Your task to perform on an android device: Open Google Chrome Image 0: 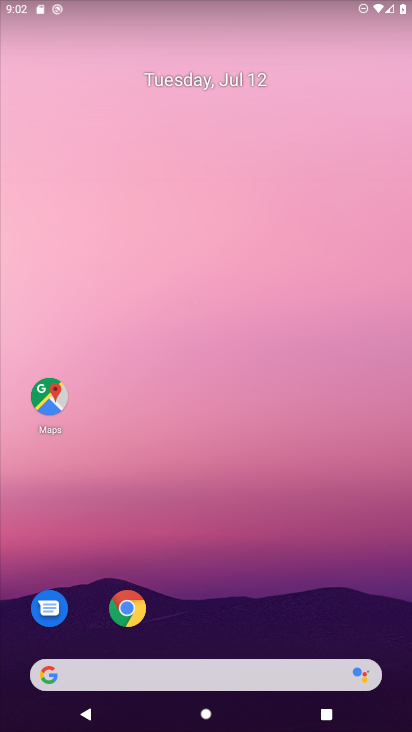
Step 0: click (130, 616)
Your task to perform on an android device: Open Google Chrome Image 1: 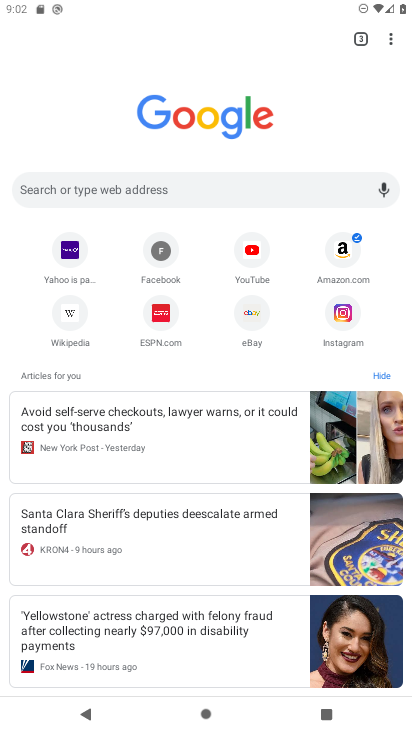
Step 1: task complete